Your task to perform on an android device: add a label to a message in the gmail app Image 0: 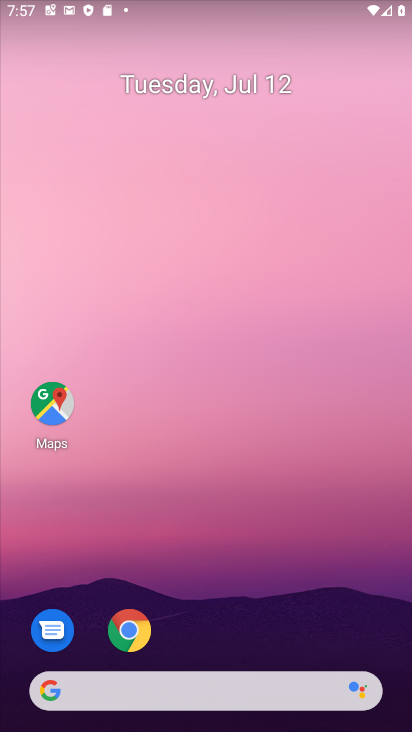
Step 0: drag from (214, 635) to (276, 8)
Your task to perform on an android device: add a label to a message in the gmail app Image 1: 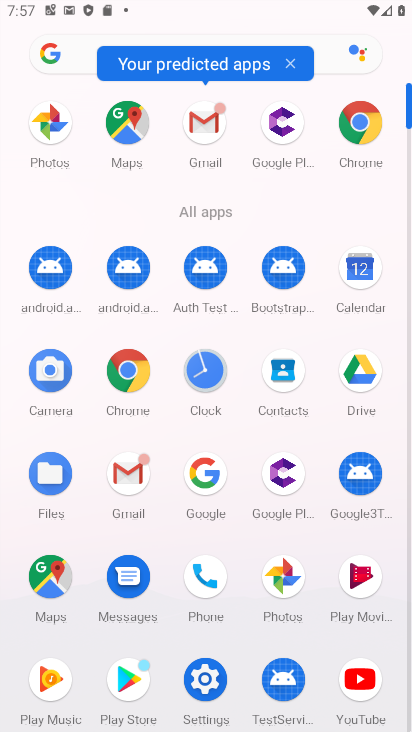
Step 1: click (196, 119)
Your task to perform on an android device: add a label to a message in the gmail app Image 2: 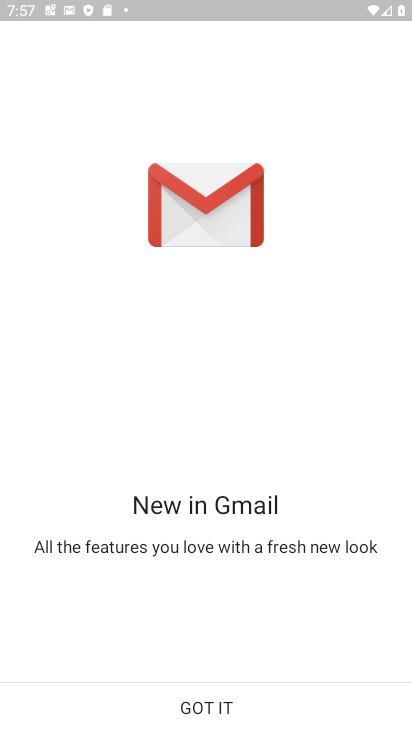
Step 2: click (189, 705)
Your task to perform on an android device: add a label to a message in the gmail app Image 3: 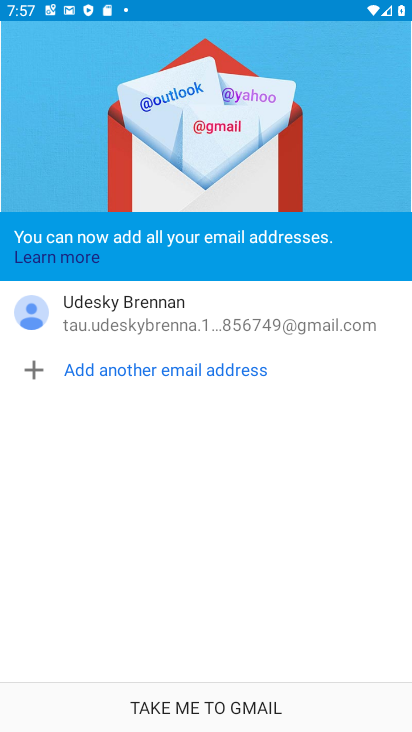
Step 3: click (199, 705)
Your task to perform on an android device: add a label to a message in the gmail app Image 4: 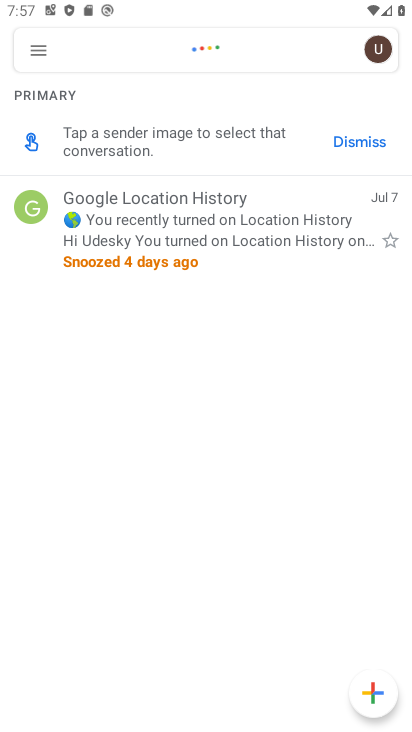
Step 4: click (127, 208)
Your task to perform on an android device: add a label to a message in the gmail app Image 5: 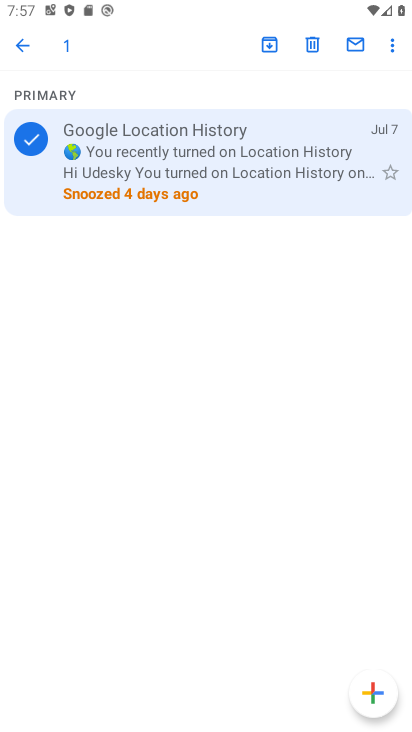
Step 5: click (392, 46)
Your task to perform on an android device: add a label to a message in the gmail app Image 6: 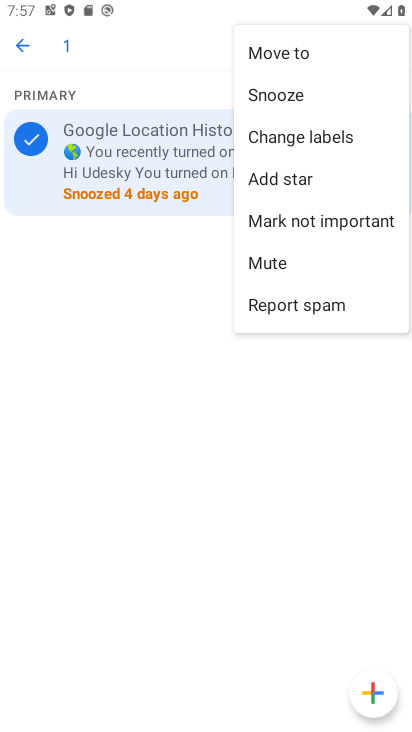
Step 6: click (328, 137)
Your task to perform on an android device: add a label to a message in the gmail app Image 7: 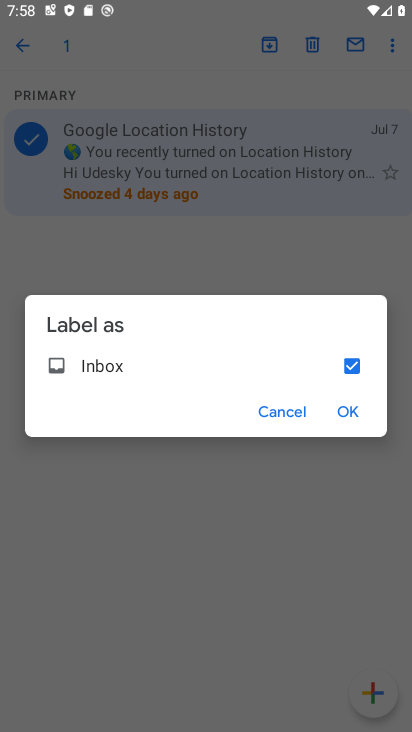
Step 7: click (359, 414)
Your task to perform on an android device: add a label to a message in the gmail app Image 8: 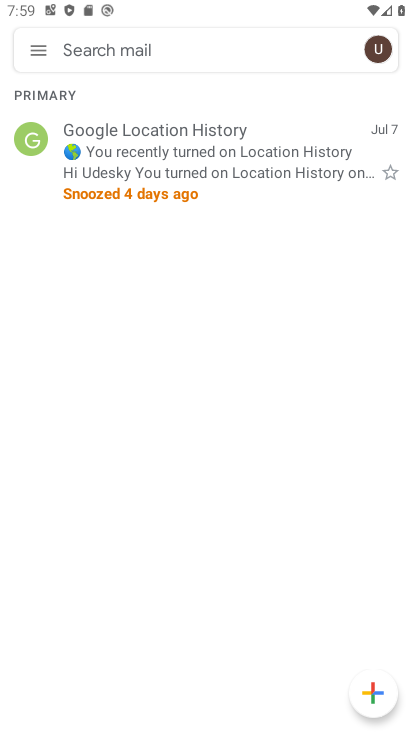
Step 8: task complete